Your task to perform on an android device: see creations saved in the google photos Image 0: 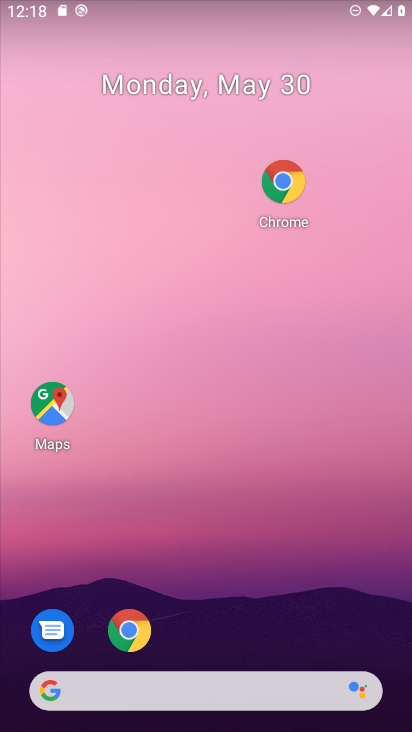
Step 0: drag from (235, 599) to (215, 24)
Your task to perform on an android device: see creations saved in the google photos Image 1: 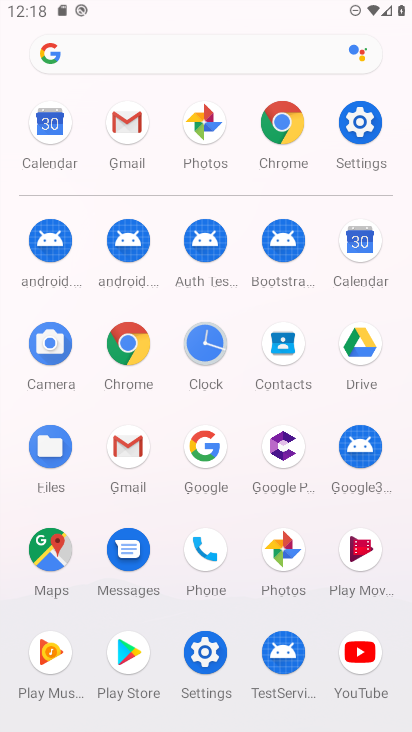
Step 1: click (284, 546)
Your task to perform on an android device: see creations saved in the google photos Image 2: 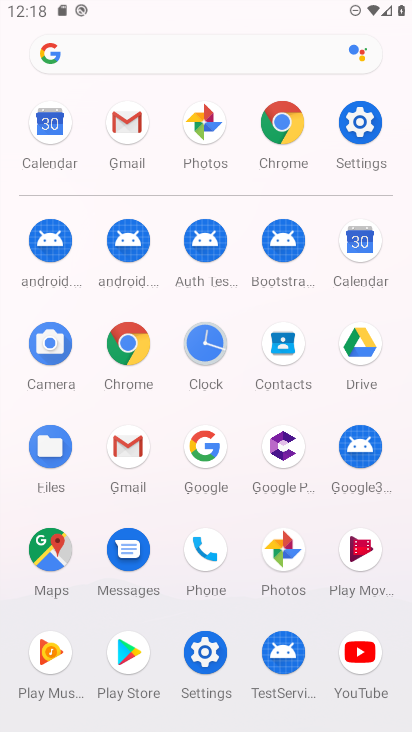
Step 2: click (284, 546)
Your task to perform on an android device: see creations saved in the google photos Image 3: 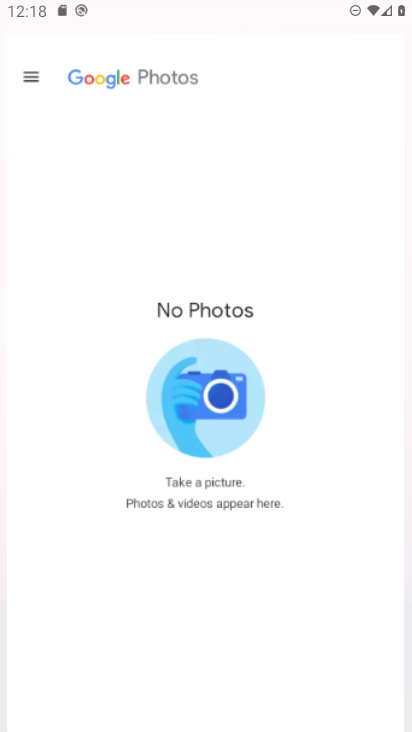
Step 3: click (286, 548)
Your task to perform on an android device: see creations saved in the google photos Image 4: 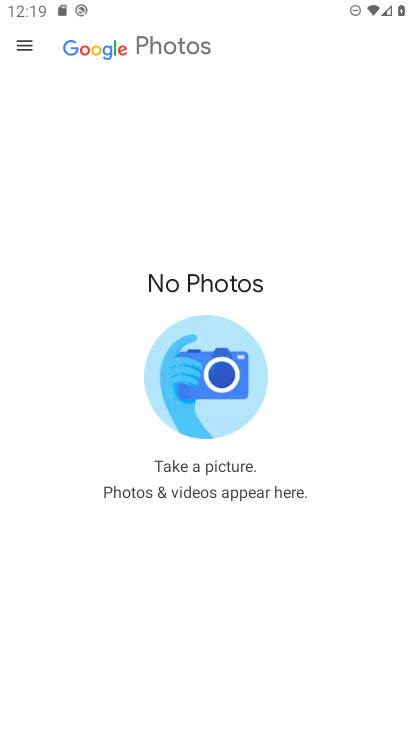
Step 4: click (31, 46)
Your task to perform on an android device: see creations saved in the google photos Image 5: 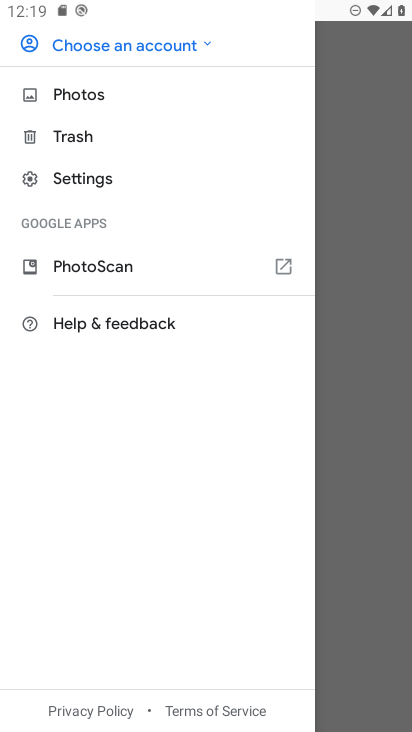
Step 5: click (76, 94)
Your task to perform on an android device: see creations saved in the google photos Image 6: 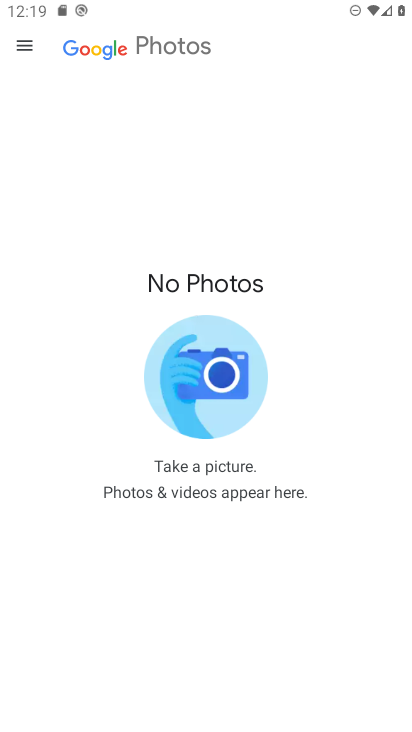
Step 6: task complete